Your task to perform on an android device: turn pop-ups on in chrome Image 0: 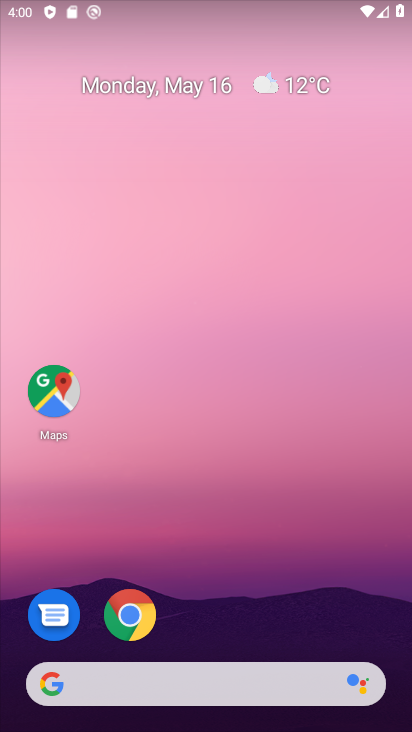
Step 0: drag from (217, 649) to (185, 93)
Your task to perform on an android device: turn pop-ups on in chrome Image 1: 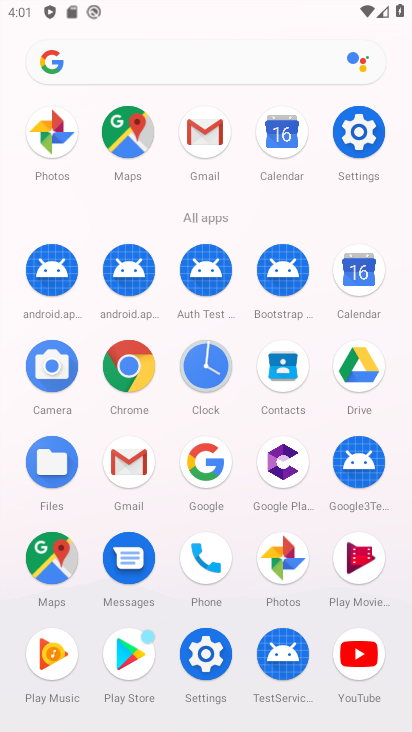
Step 1: click (134, 371)
Your task to perform on an android device: turn pop-ups on in chrome Image 2: 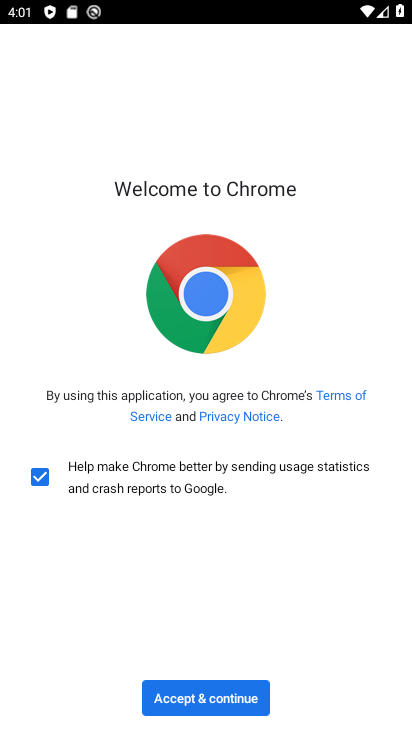
Step 2: click (211, 694)
Your task to perform on an android device: turn pop-ups on in chrome Image 3: 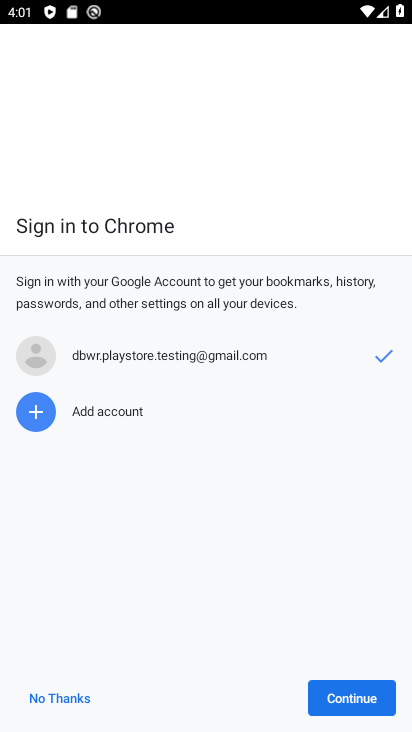
Step 3: click (347, 703)
Your task to perform on an android device: turn pop-ups on in chrome Image 4: 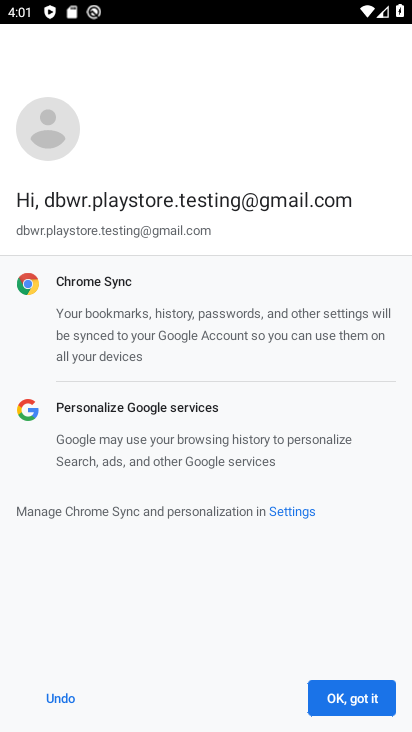
Step 4: click (337, 695)
Your task to perform on an android device: turn pop-ups on in chrome Image 5: 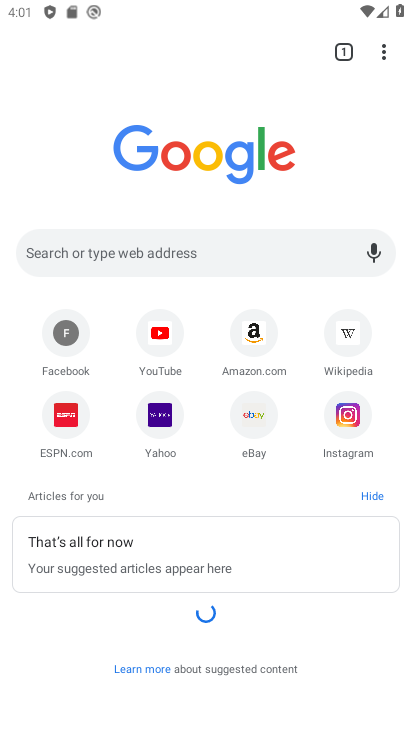
Step 5: click (385, 52)
Your task to perform on an android device: turn pop-ups on in chrome Image 6: 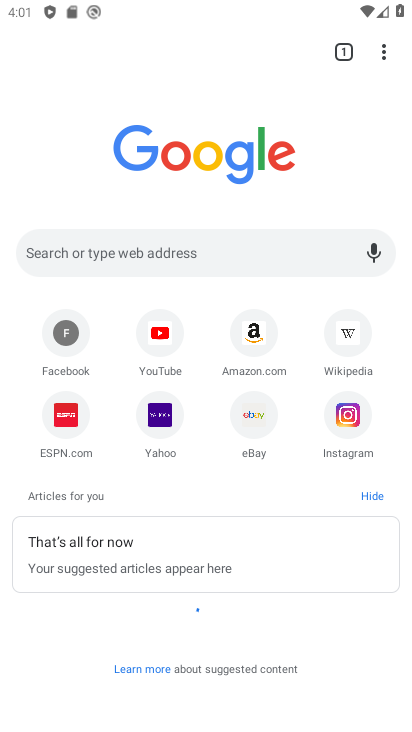
Step 6: drag from (381, 48) to (208, 433)
Your task to perform on an android device: turn pop-ups on in chrome Image 7: 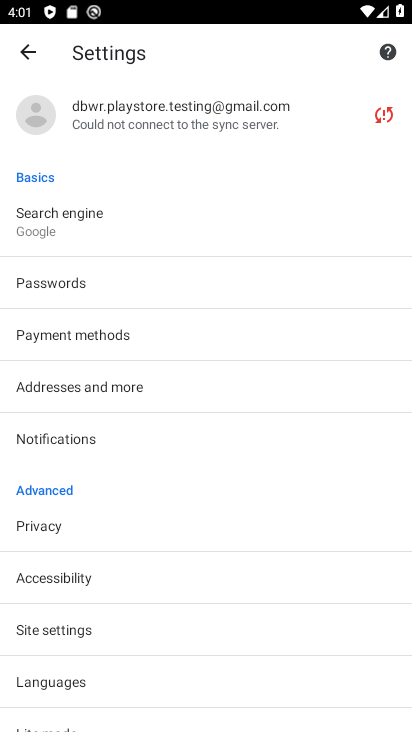
Step 7: drag from (194, 565) to (147, 113)
Your task to perform on an android device: turn pop-ups on in chrome Image 8: 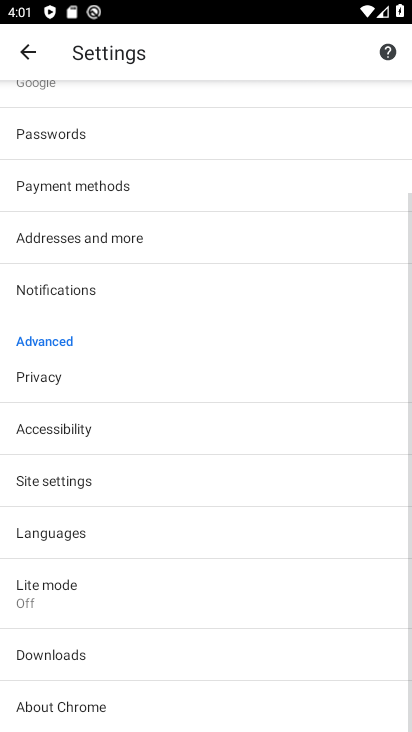
Step 8: drag from (96, 601) to (89, 437)
Your task to perform on an android device: turn pop-ups on in chrome Image 9: 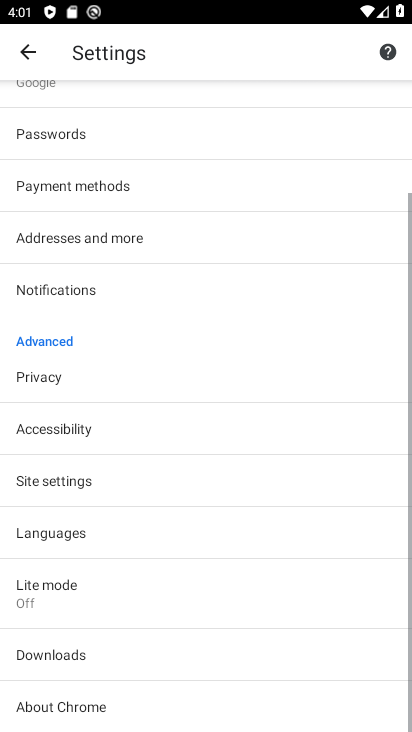
Step 9: click (80, 466)
Your task to perform on an android device: turn pop-ups on in chrome Image 10: 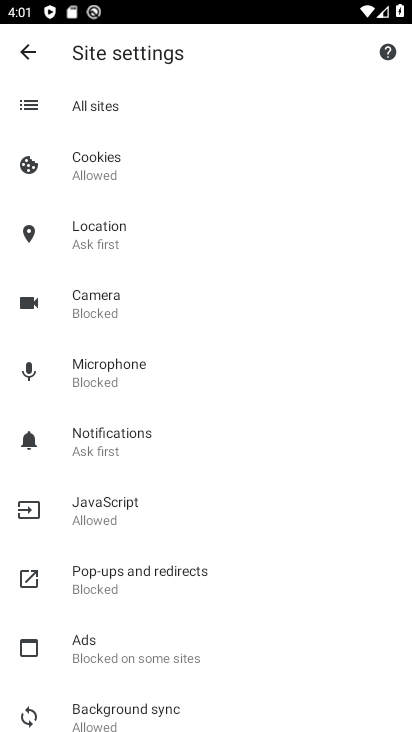
Step 10: drag from (135, 704) to (136, 569)
Your task to perform on an android device: turn pop-ups on in chrome Image 11: 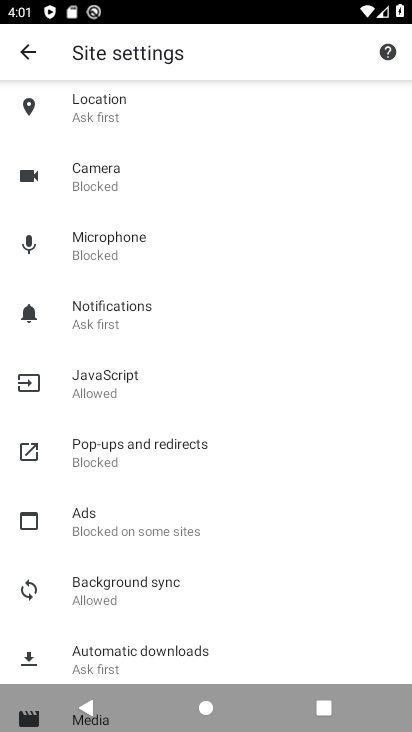
Step 11: click (94, 458)
Your task to perform on an android device: turn pop-ups on in chrome Image 12: 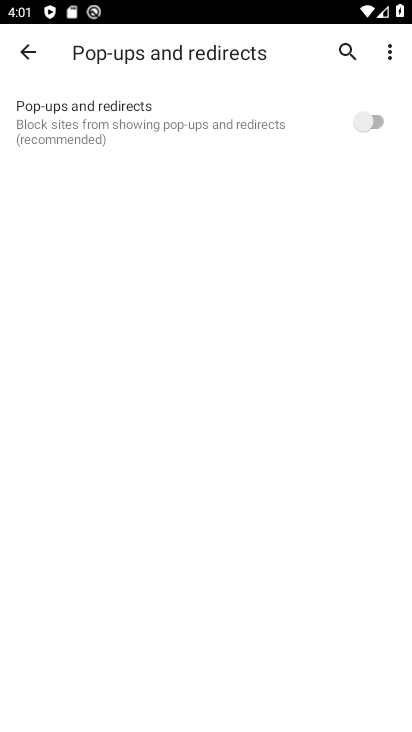
Step 12: click (367, 118)
Your task to perform on an android device: turn pop-ups on in chrome Image 13: 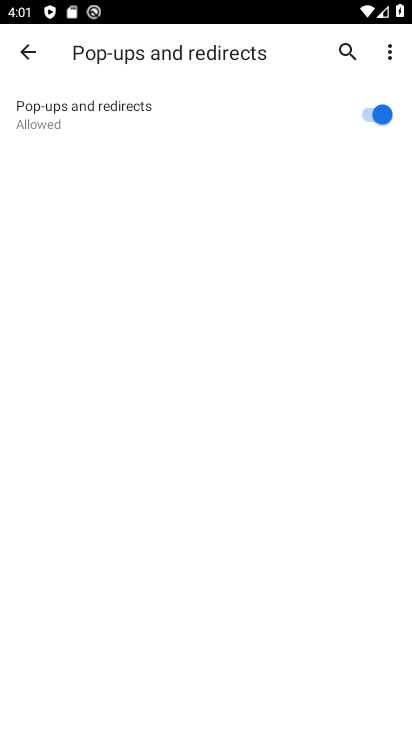
Step 13: task complete